Your task to perform on an android device: change the clock display to show seconds Image 0: 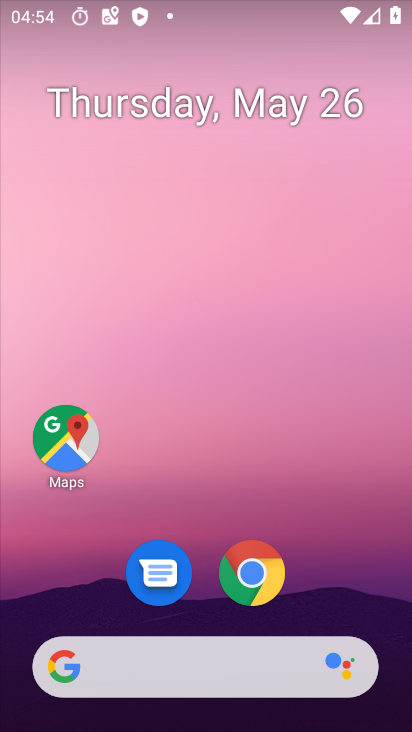
Step 0: drag from (312, 612) to (189, 24)
Your task to perform on an android device: change the clock display to show seconds Image 1: 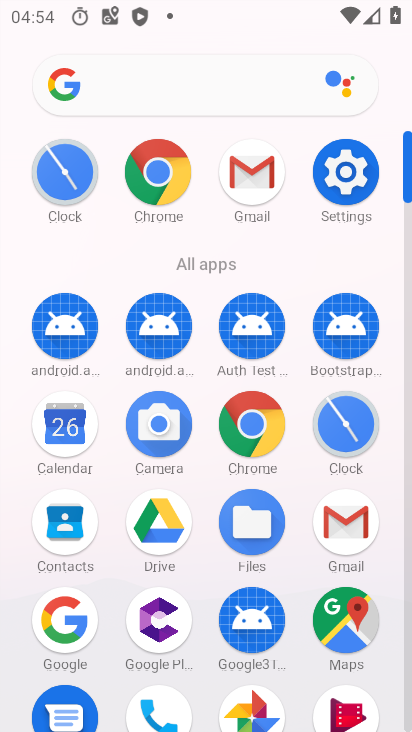
Step 1: click (356, 452)
Your task to perform on an android device: change the clock display to show seconds Image 2: 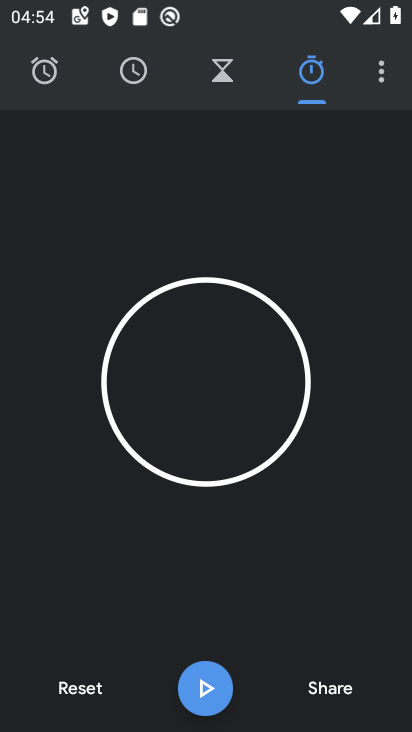
Step 2: click (379, 71)
Your task to perform on an android device: change the clock display to show seconds Image 3: 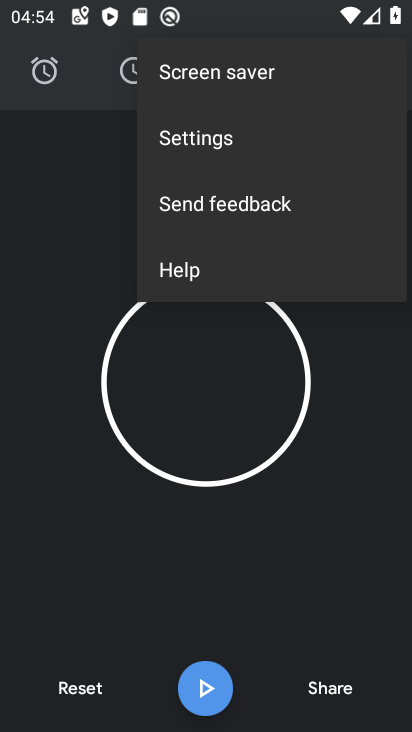
Step 3: click (196, 145)
Your task to perform on an android device: change the clock display to show seconds Image 4: 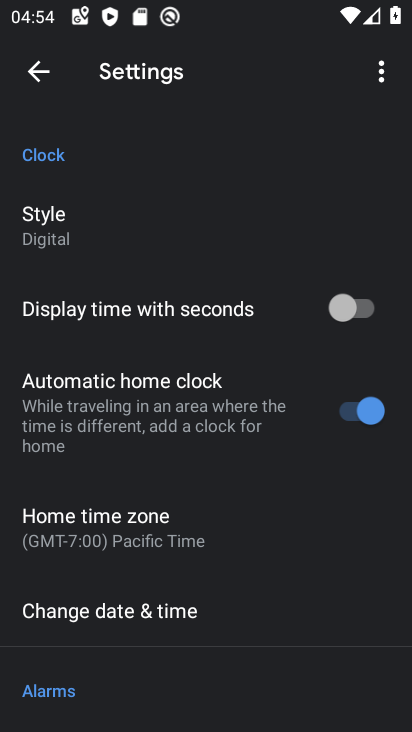
Step 4: click (380, 304)
Your task to perform on an android device: change the clock display to show seconds Image 5: 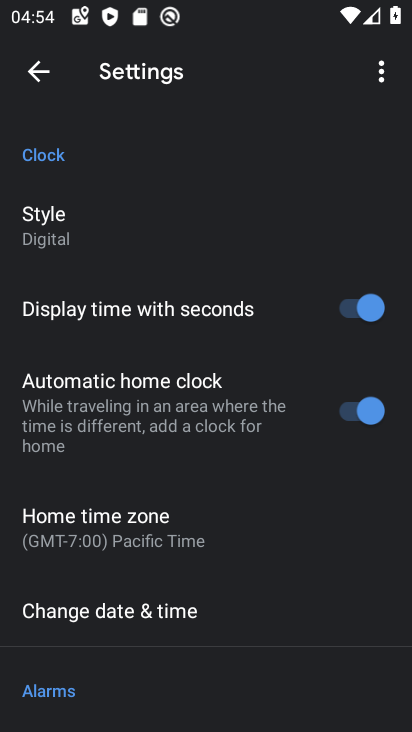
Step 5: task complete